Your task to perform on an android device: remove spam from my inbox in the gmail app Image 0: 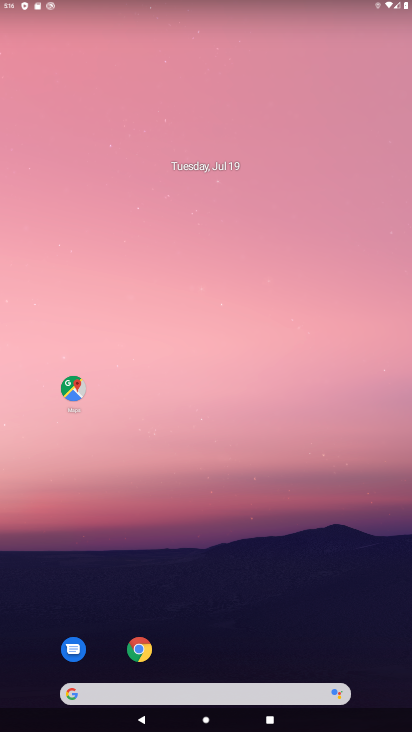
Step 0: drag from (249, 599) to (224, 86)
Your task to perform on an android device: remove spam from my inbox in the gmail app Image 1: 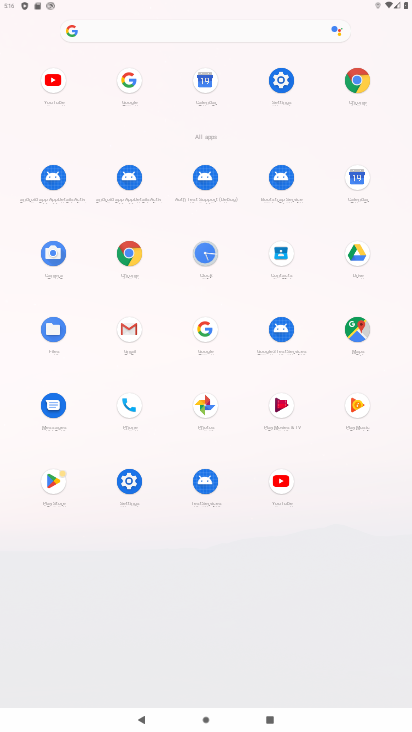
Step 1: click (132, 323)
Your task to perform on an android device: remove spam from my inbox in the gmail app Image 2: 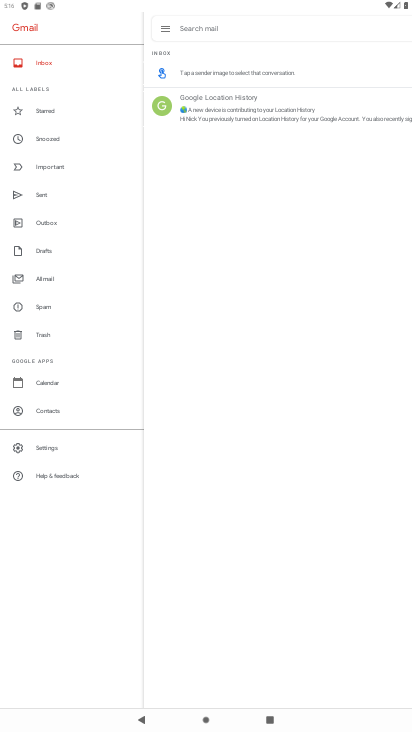
Step 2: click (46, 60)
Your task to perform on an android device: remove spam from my inbox in the gmail app Image 3: 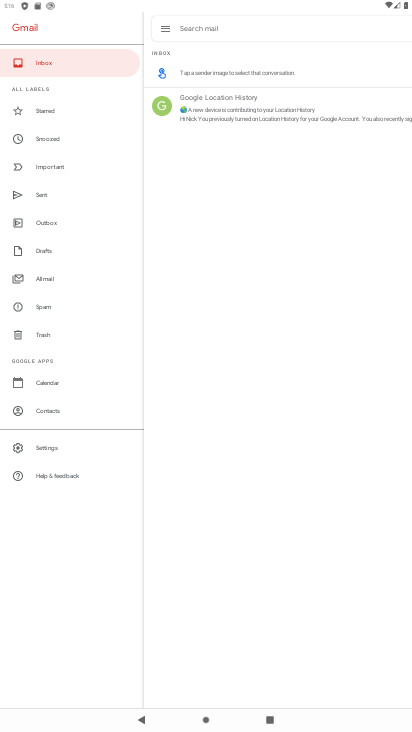
Step 3: task complete